Your task to perform on an android device: Check the weather Image 0: 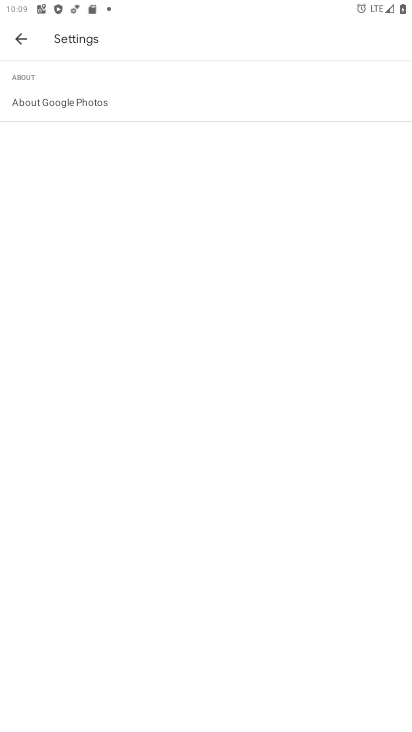
Step 0: click (213, 195)
Your task to perform on an android device: Check the weather Image 1: 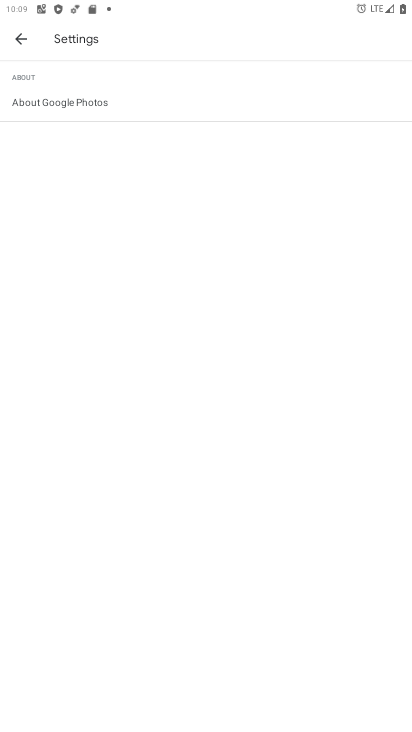
Step 1: press home button
Your task to perform on an android device: Check the weather Image 2: 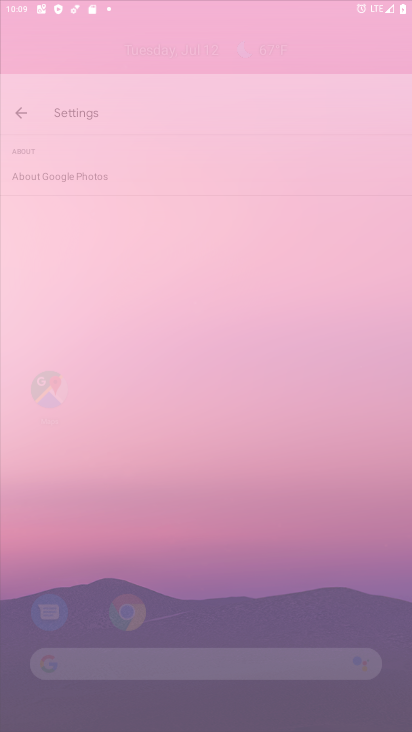
Step 2: drag from (152, 535) to (189, 204)
Your task to perform on an android device: Check the weather Image 3: 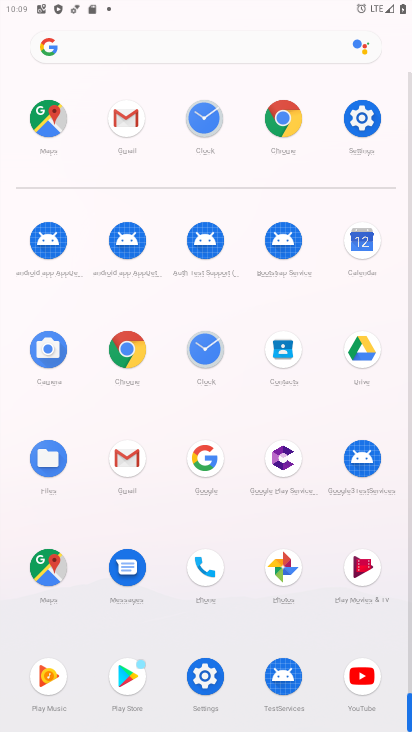
Step 3: click (198, 42)
Your task to perform on an android device: Check the weather Image 4: 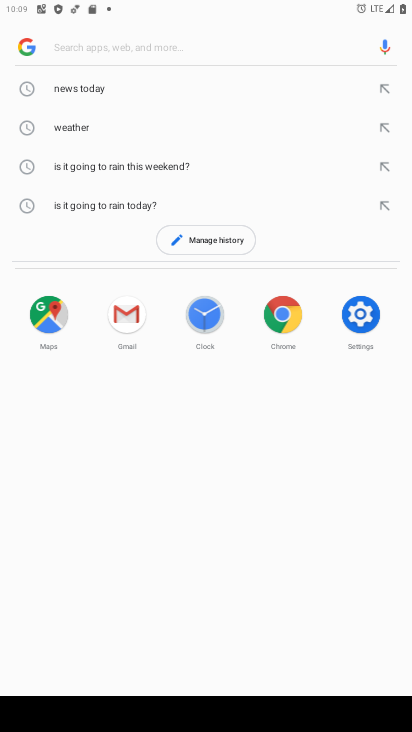
Step 4: click (59, 121)
Your task to perform on an android device: Check the weather Image 5: 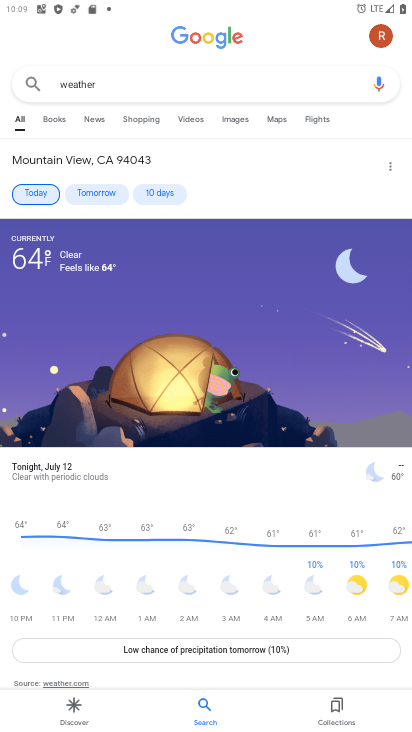
Step 5: task complete